Your task to perform on an android device: turn notification dots on Image 0: 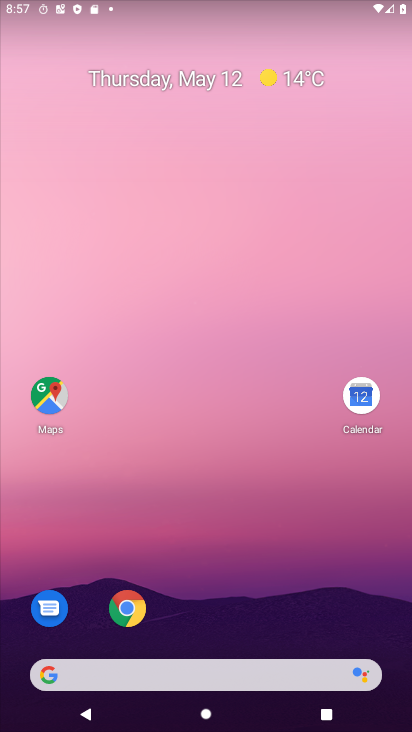
Step 0: drag from (152, 525) to (43, 163)
Your task to perform on an android device: turn notification dots on Image 1: 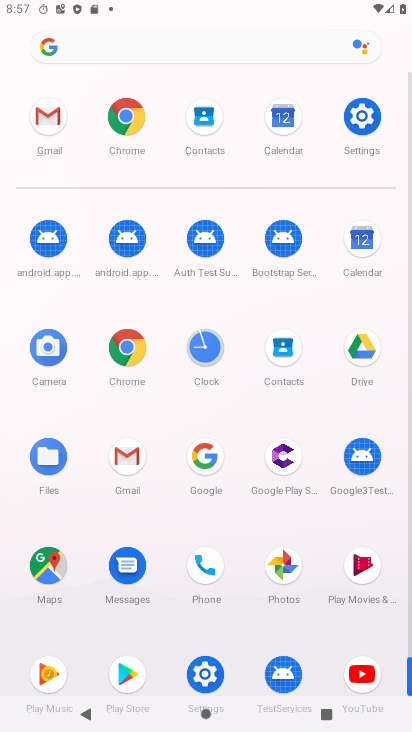
Step 1: click (357, 127)
Your task to perform on an android device: turn notification dots on Image 2: 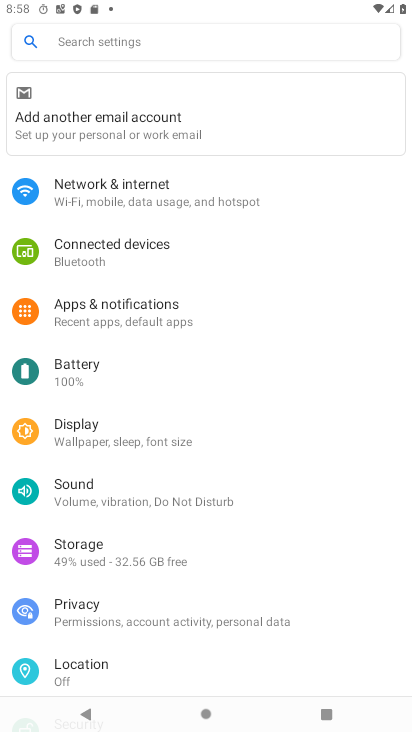
Step 2: click (84, 316)
Your task to perform on an android device: turn notification dots on Image 3: 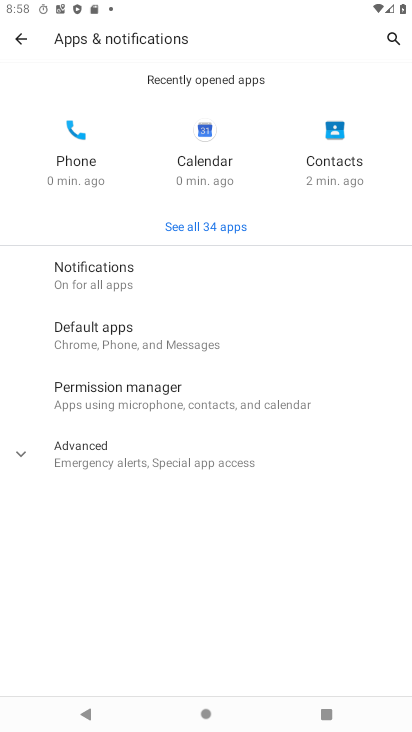
Step 3: click (97, 279)
Your task to perform on an android device: turn notification dots on Image 4: 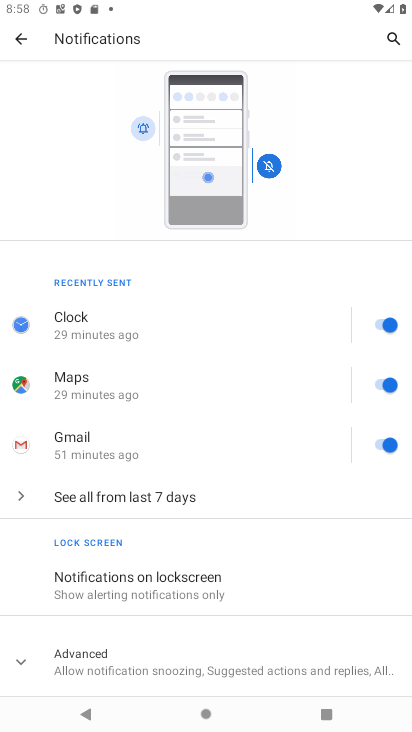
Step 4: drag from (242, 551) to (150, 217)
Your task to perform on an android device: turn notification dots on Image 5: 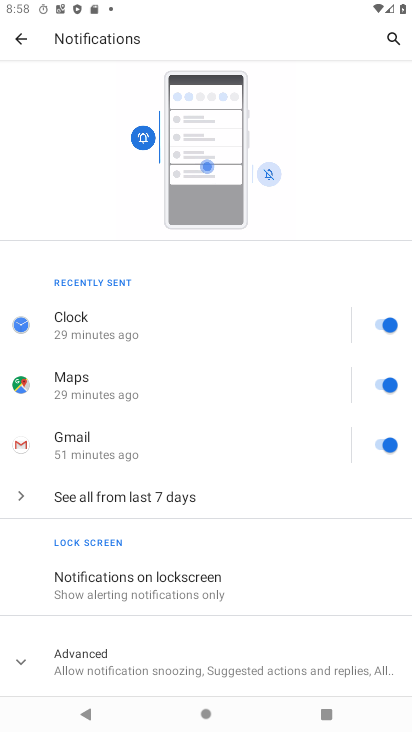
Step 5: click (256, 580)
Your task to perform on an android device: turn notification dots on Image 6: 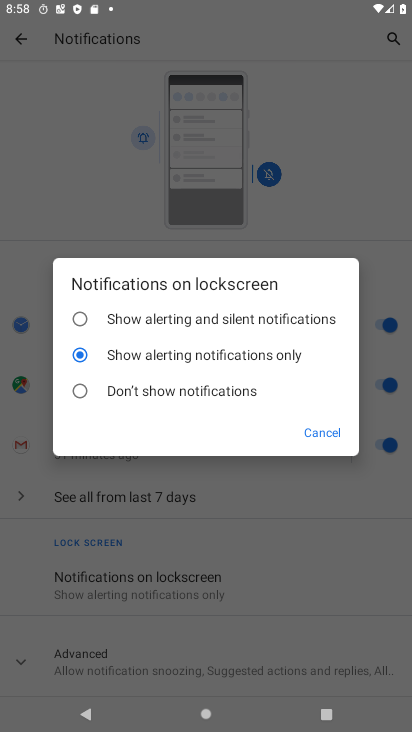
Step 6: click (268, 363)
Your task to perform on an android device: turn notification dots on Image 7: 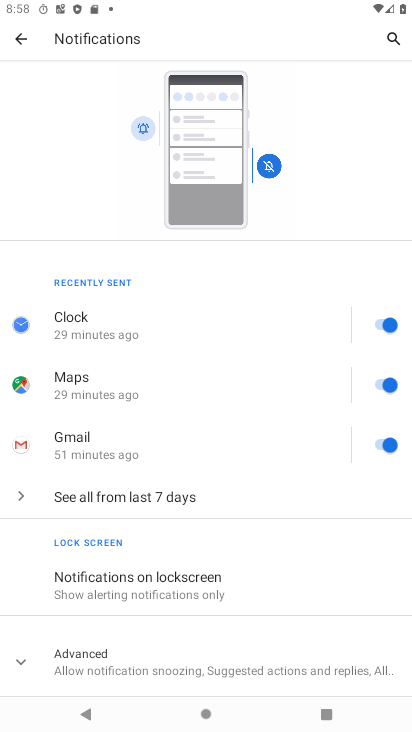
Step 7: click (261, 662)
Your task to perform on an android device: turn notification dots on Image 8: 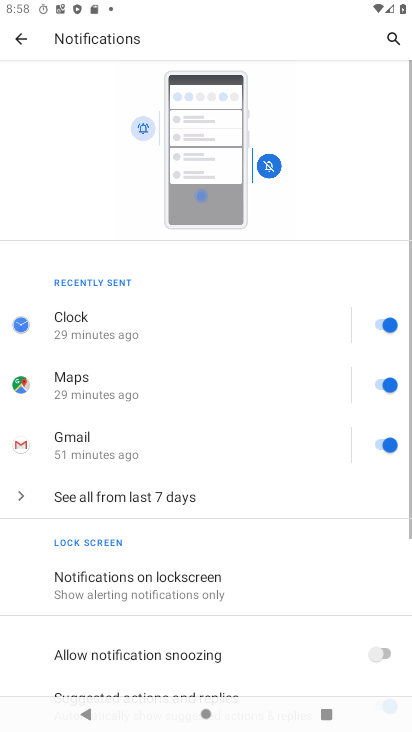
Step 8: drag from (246, 651) to (208, 232)
Your task to perform on an android device: turn notification dots on Image 9: 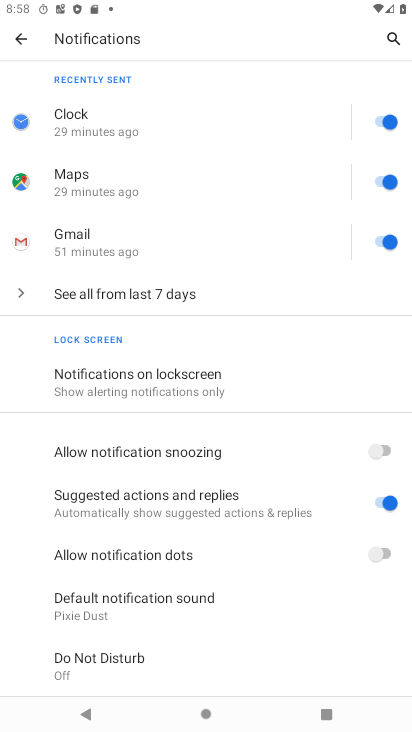
Step 9: click (380, 554)
Your task to perform on an android device: turn notification dots on Image 10: 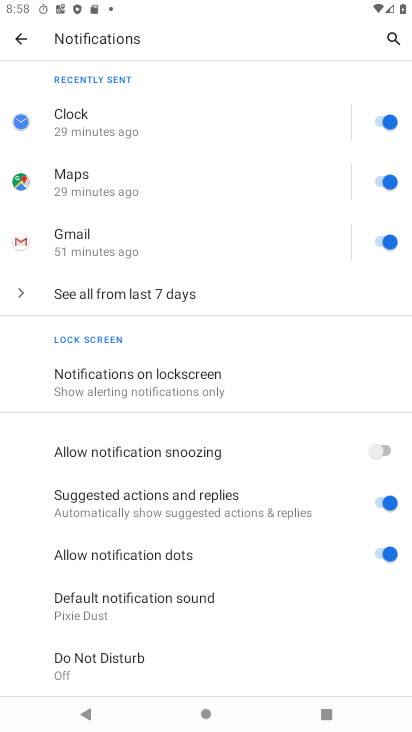
Step 10: task complete